Your task to perform on an android device: Go to battery settings Image 0: 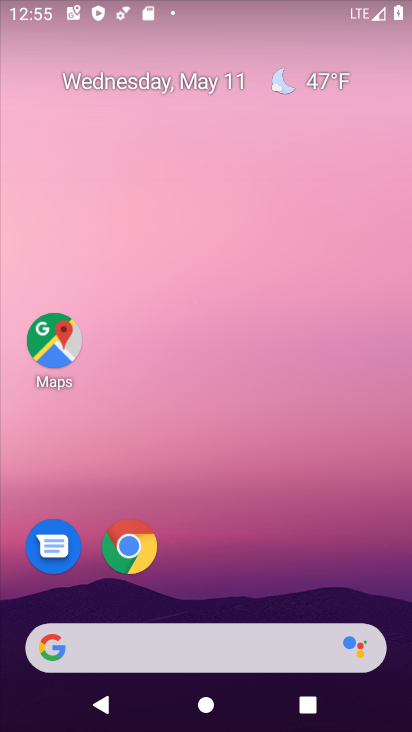
Step 0: drag from (229, 480) to (332, 98)
Your task to perform on an android device: Go to battery settings Image 1: 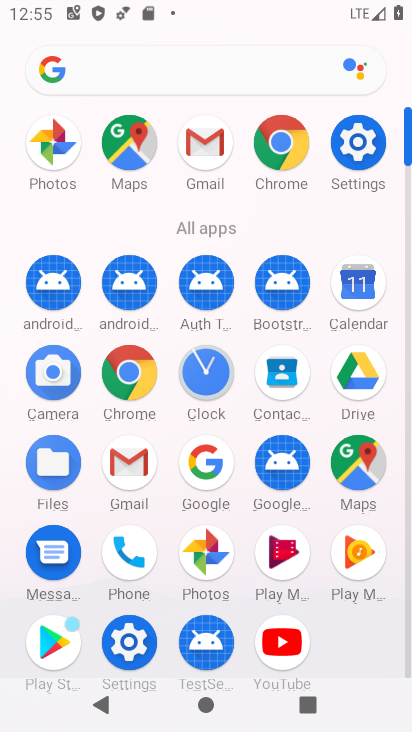
Step 1: click (114, 643)
Your task to perform on an android device: Go to battery settings Image 2: 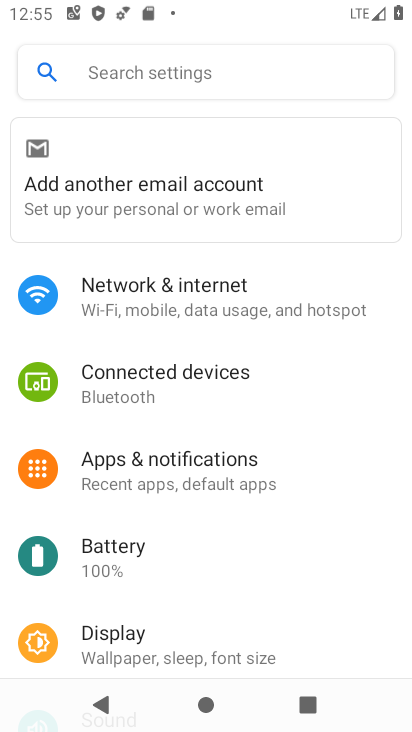
Step 2: drag from (153, 615) to (303, 273)
Your task to perform on an android device: Go to battery settings Image 3: 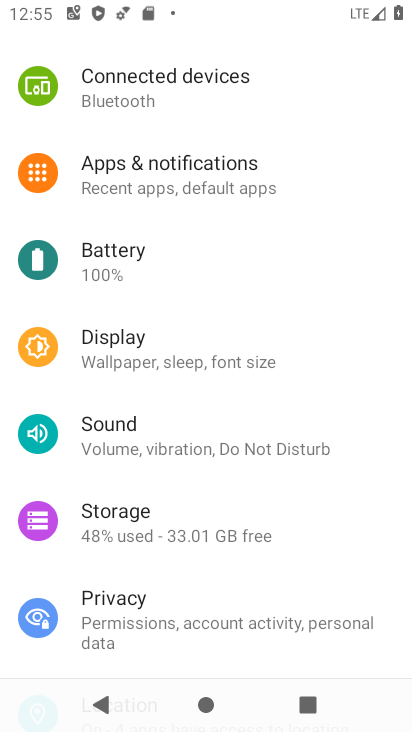
Step 3: drag from (158, 628) to (283, 306)
Your task to perform on an android device: Go to battery settings Image 4: 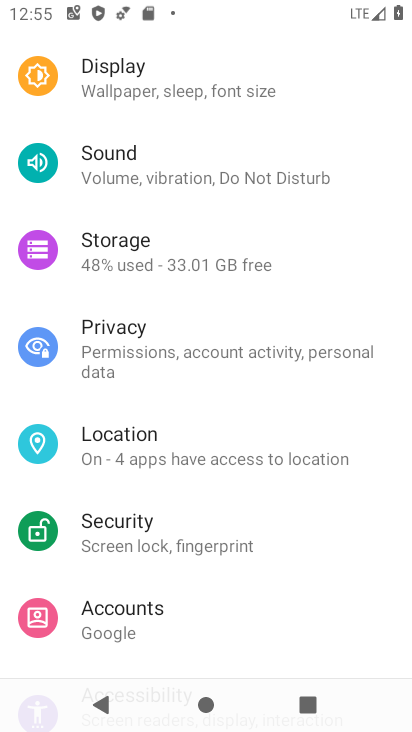
Step 4: drag from (146, 635) to (255, 295)
Your task to perform on an android device: Go to battery settings Image 5: 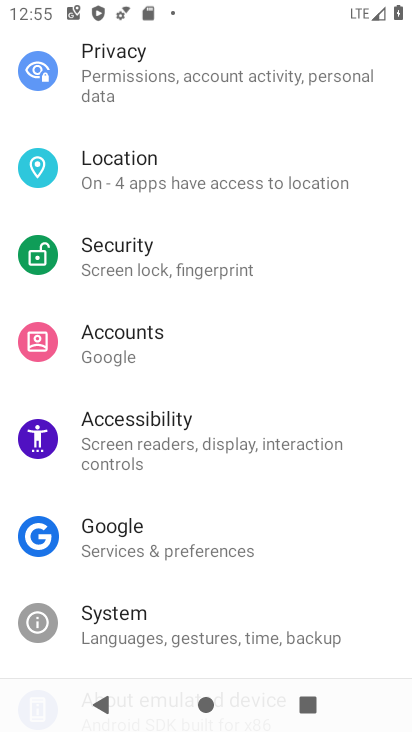
Step 5: drag from (189, 155) to (108, 628)
Your task to perform on an android device: Go to battery settings Image 6: 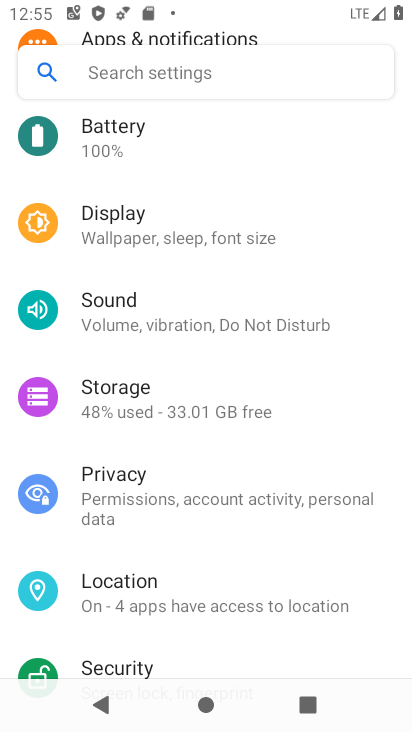
Step 6: drag from (158, 167) to (152, 498)
Your task to perform on an android device: Go to battery settings Image 7: 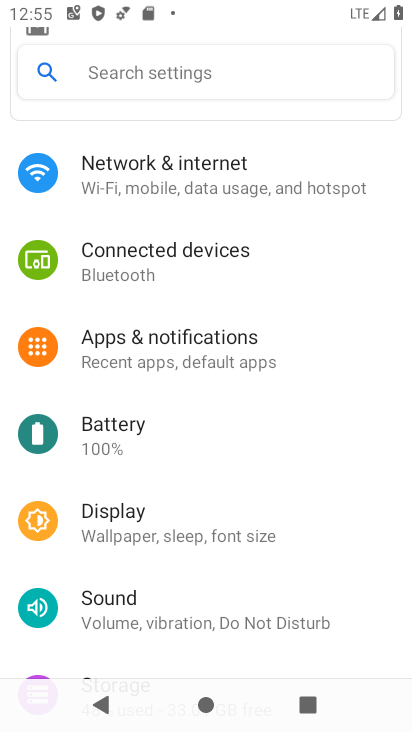
Step 7: click (125, 436)
Your task to perform on an android device: Go to battery settings Image 8: 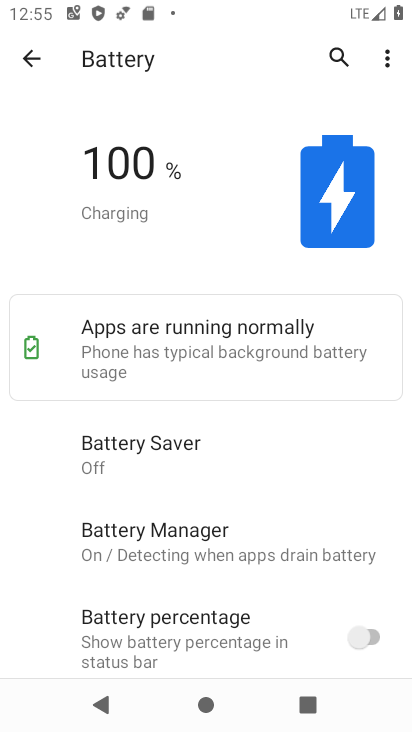
Step 8: task complete